Your task to perform on an android device: What's the latest news in cosmology? Image 0: 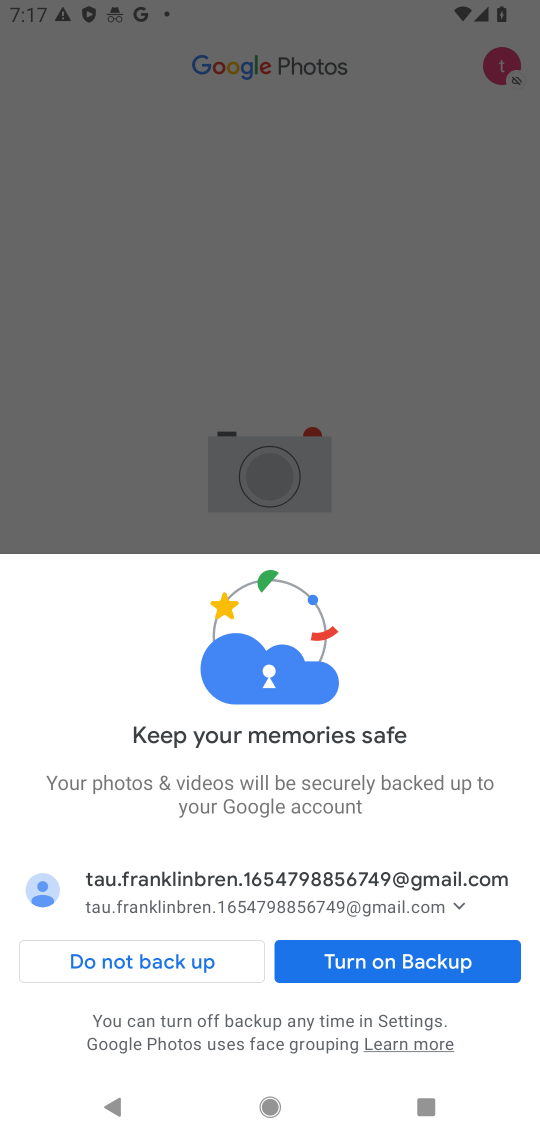
Step 0: press home button
Your task to perform on an android device: What's the latest news in cosmology? Image 1: 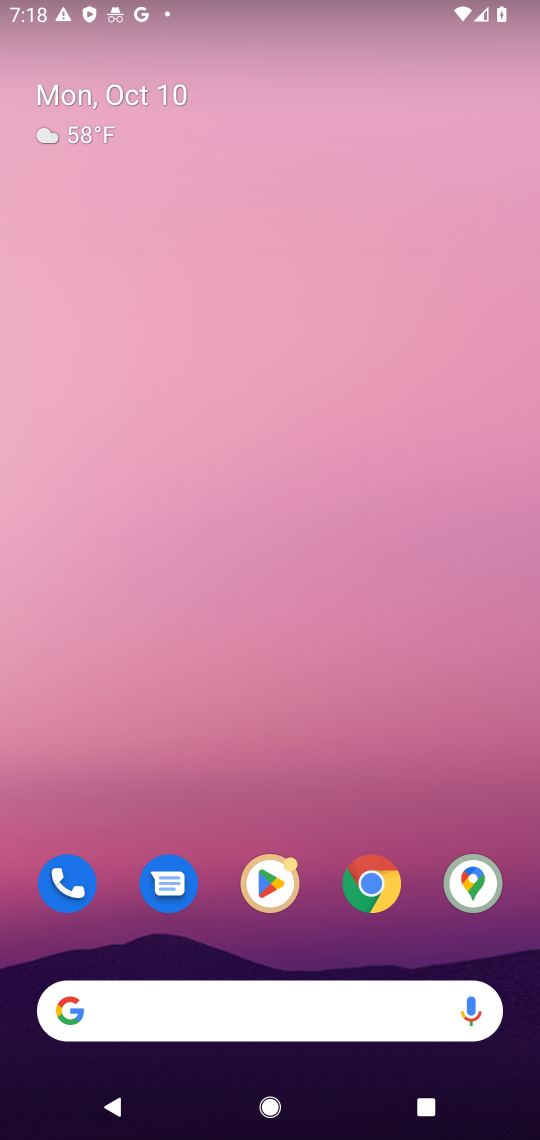
Step 1: click (382, 999)
Your task to perform on an android device: What's the latest news in cosmology? Image 2: 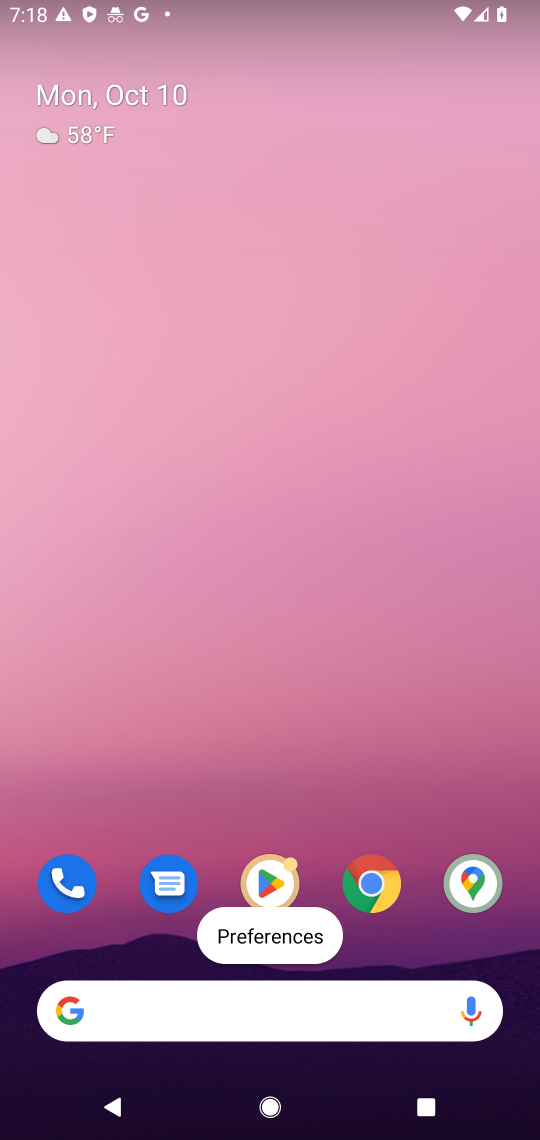
Step 2: drag from (304, 975) to (343, 376)
Your task to perform on an android device: What's the latest news in cosmology? Image 3: 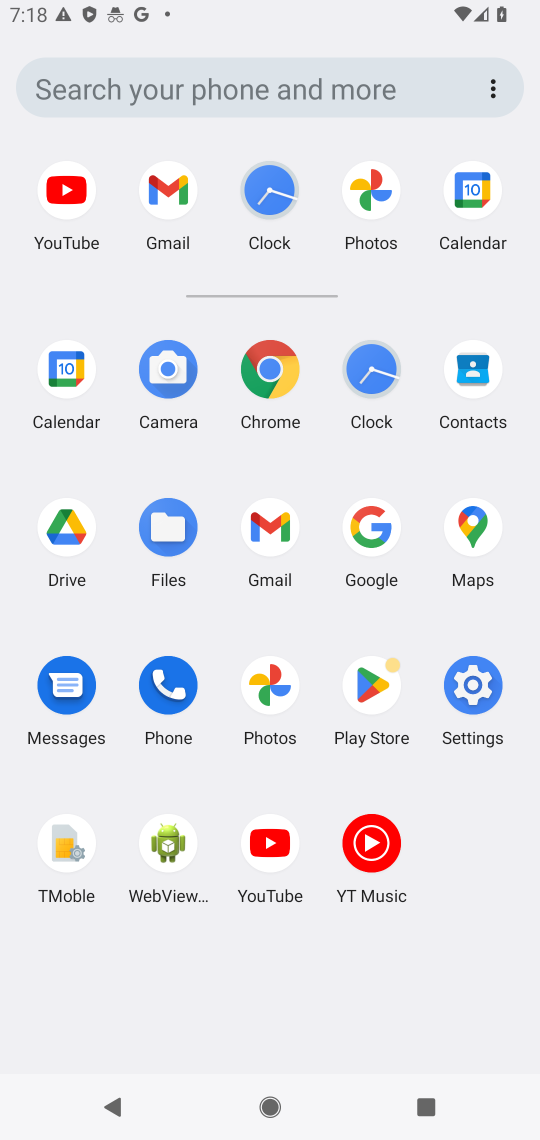
Step 3: click (387, 566)
Your task to perform on an android device: What's the latest news in cosmology? Image 4: 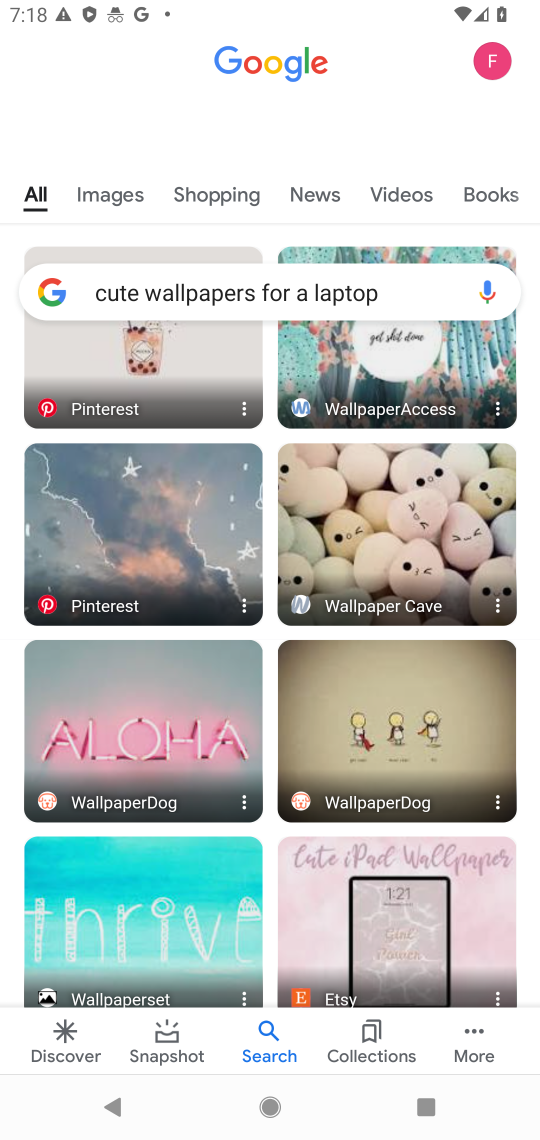
Step 4: click (433, 303)
Your task to perform on an android device: What's the latest news in cosmology? Image 5: 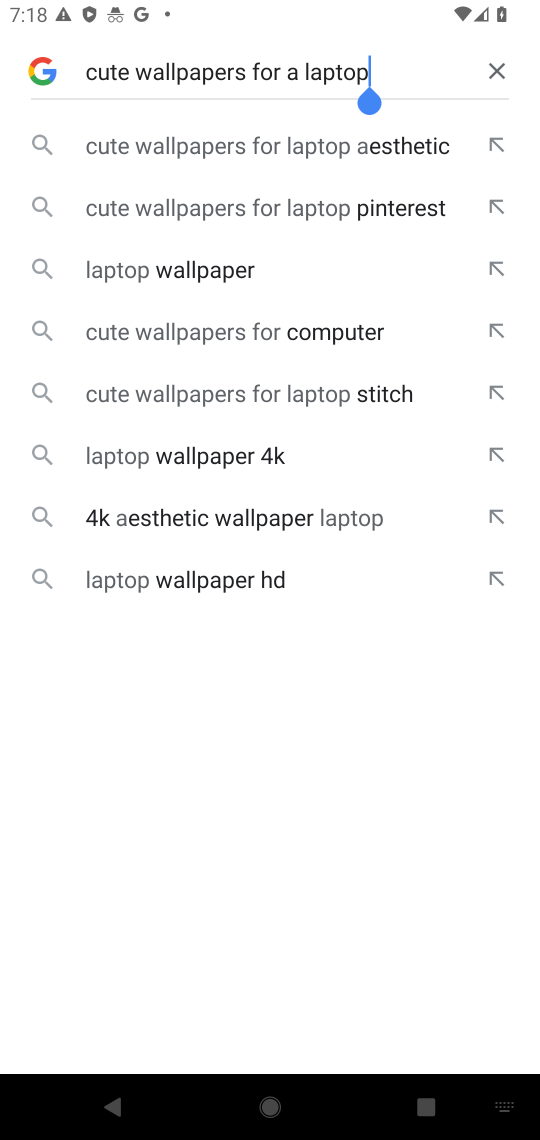
Step 5: click (495, 71)
Your task to perform on an android device: What's the latest news in cosmology? Image 6: 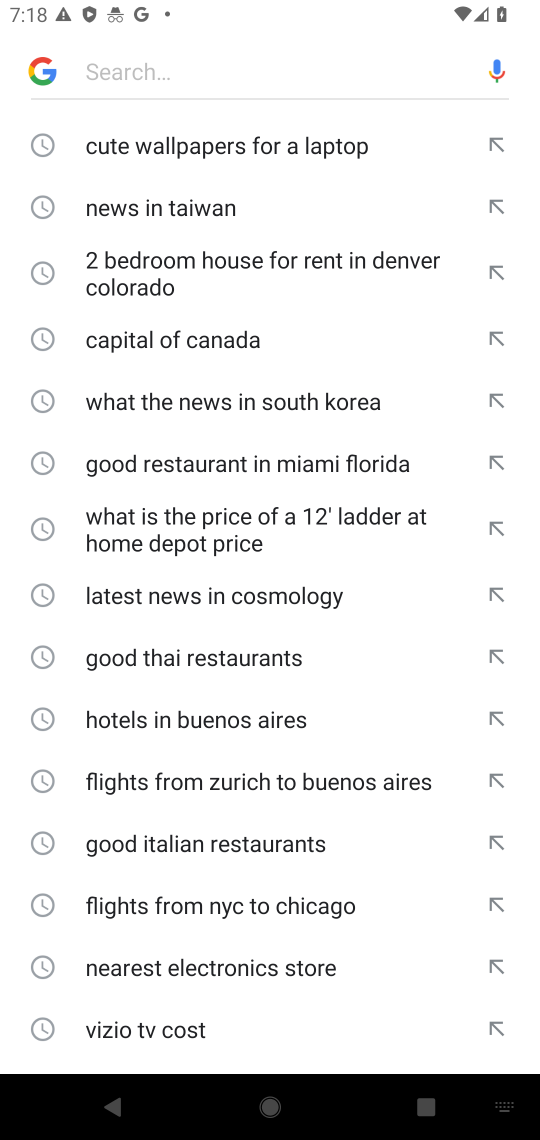
Step 6: type "latest news in cosmology"
Your task to perform on an android device: What's the latest news in cosmology? Image 7: 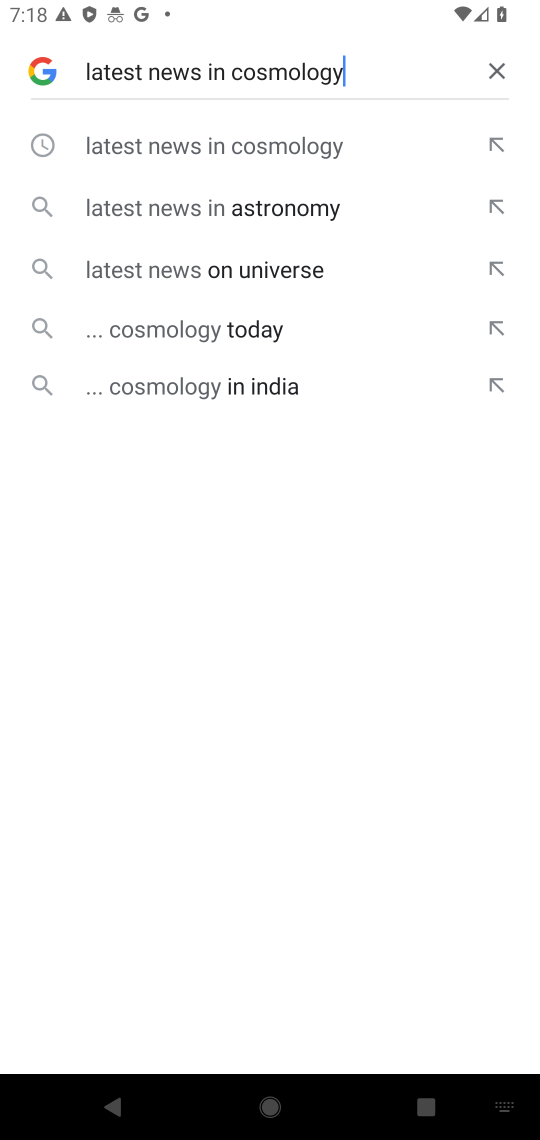
Step 7: click (280, 139)
Your task to perform on an android device: What's the latest news in cosmology? Image 8: 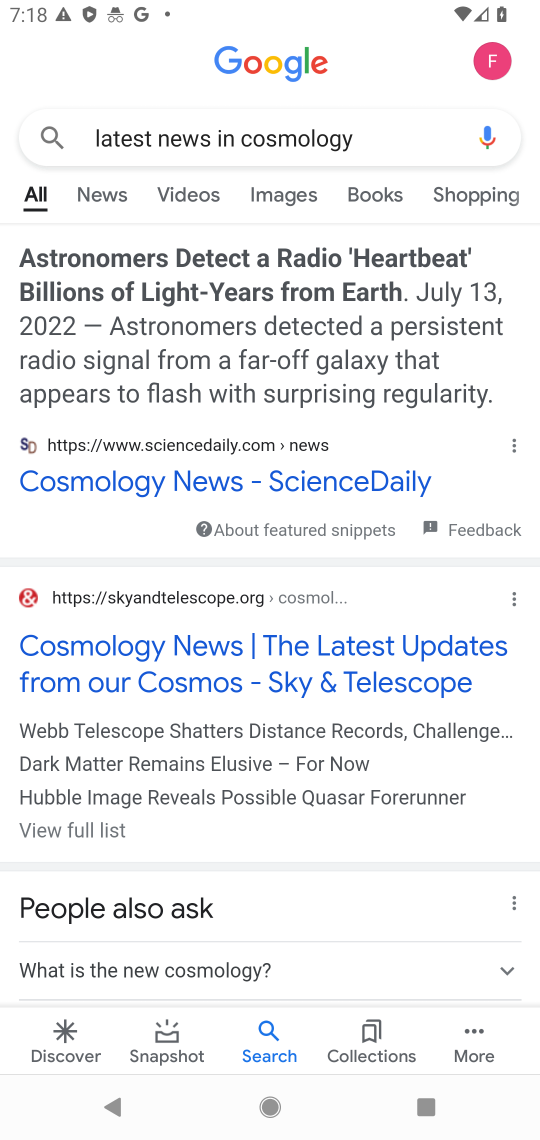
Step 8: task complete